Your task to perform on an android device: Go to Google maps Image 0: 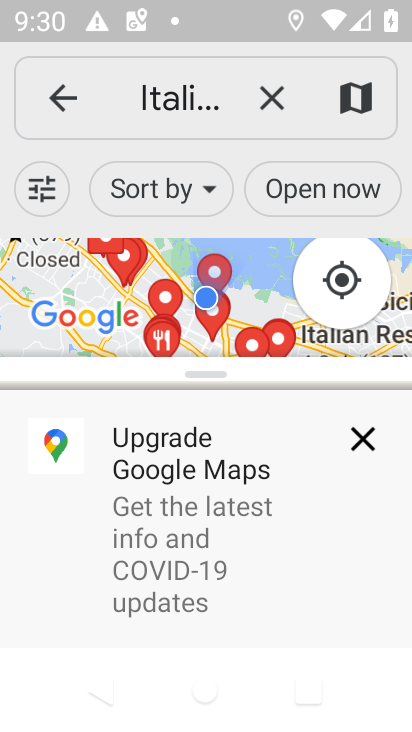
Step 0: press home button
Your task to perform on an android device: Go to Google maps Image 1: 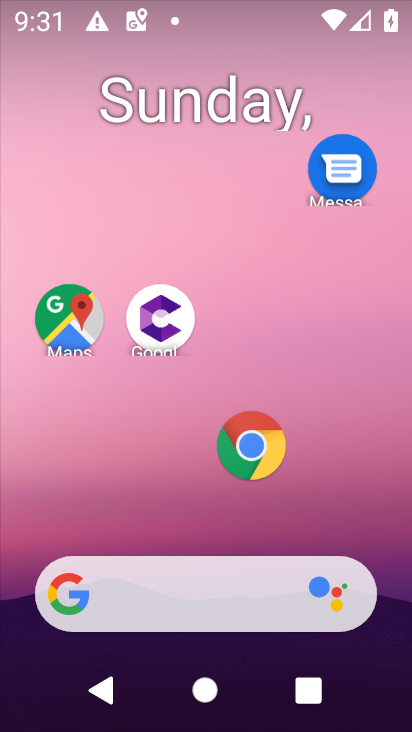
Step 1: click (75, 317)
Your task to perform on an android device: Go to Google maps Image 2: 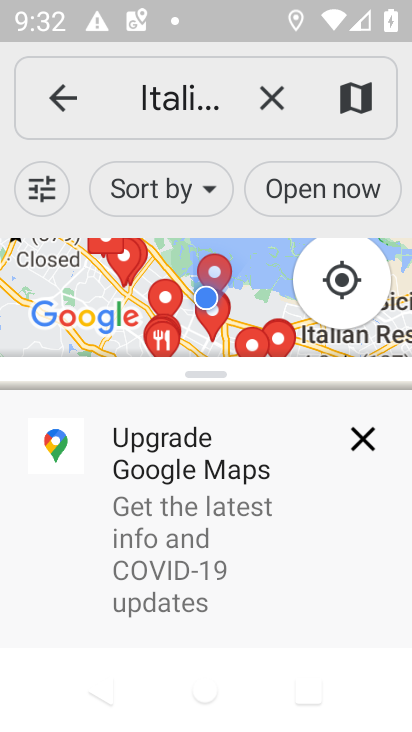
Step 2: press home button
Your task to perform on an android device: Go to Google maps Image 3: 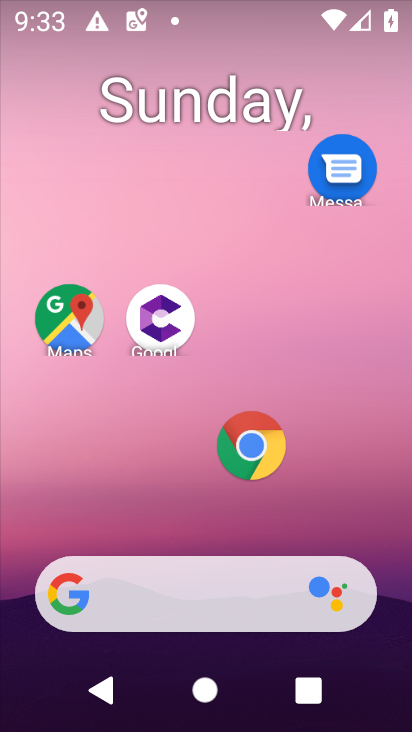
Step 3: click (76, 308)
Your task to perform on an android device: Go to Google maps Image 4: 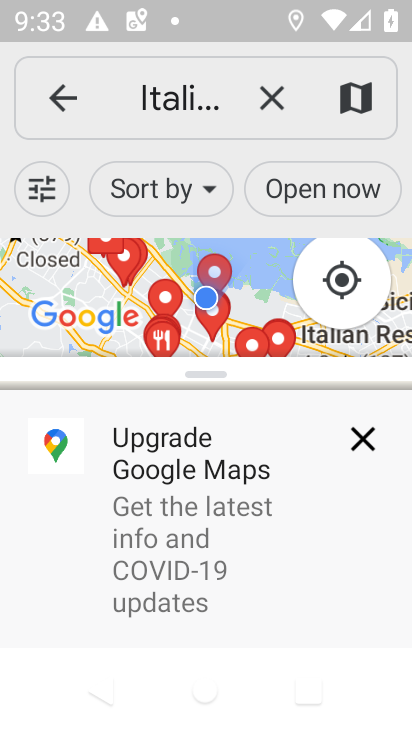
Step 4: task complete